Your task to perform on an android device: Clear the cart on ebay.com. Search for "razer blade" on ebay.com, select the first entry, and add it to the cart. Image 0: 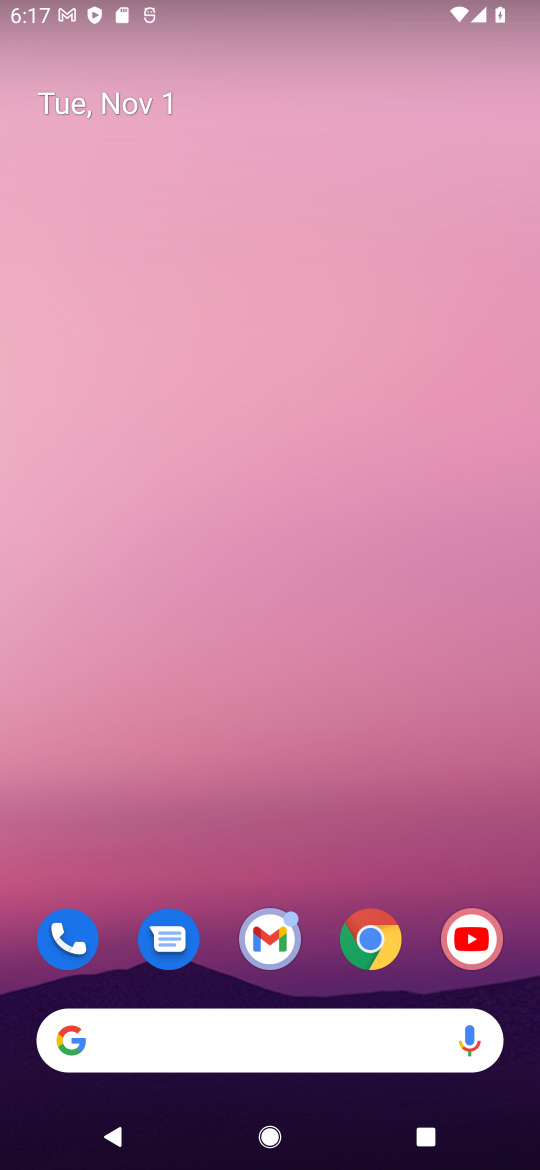
Step 0: drag from (267, 964) to (177, 178)
Your task to perform on an android device: Clear the cart on ebay.com. Search for "razer blade" on ebay.com, select the first entry, and add it to the cart. Image 1: 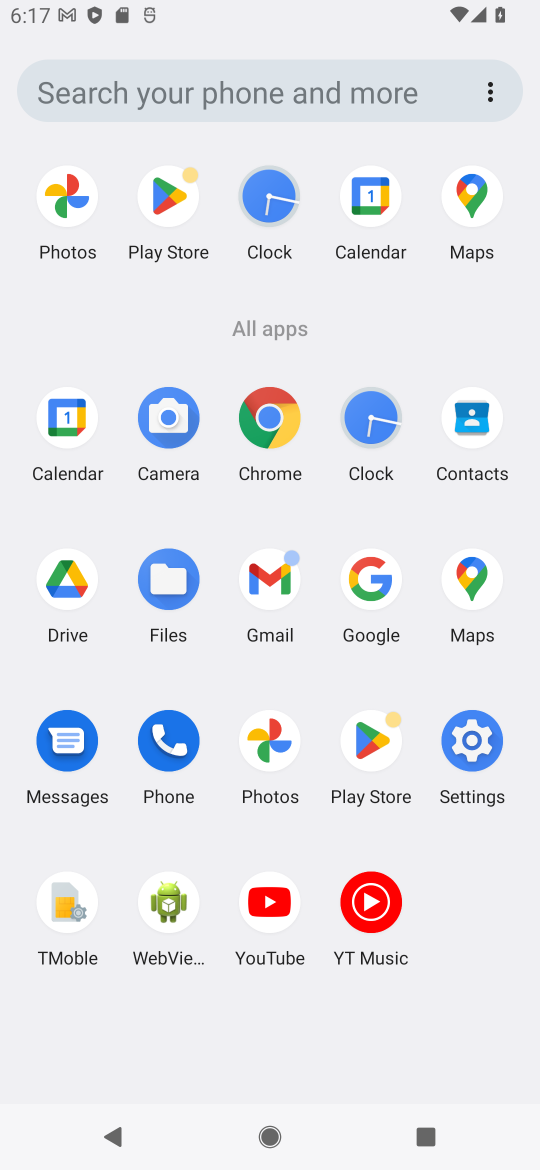
Step 1: click (284, 419)
Your task to perform on an android device: Clear the cart on ebay.com. Search for "razer blade" on ebay.com, select the first entry, and add it to the cart. Image 2: 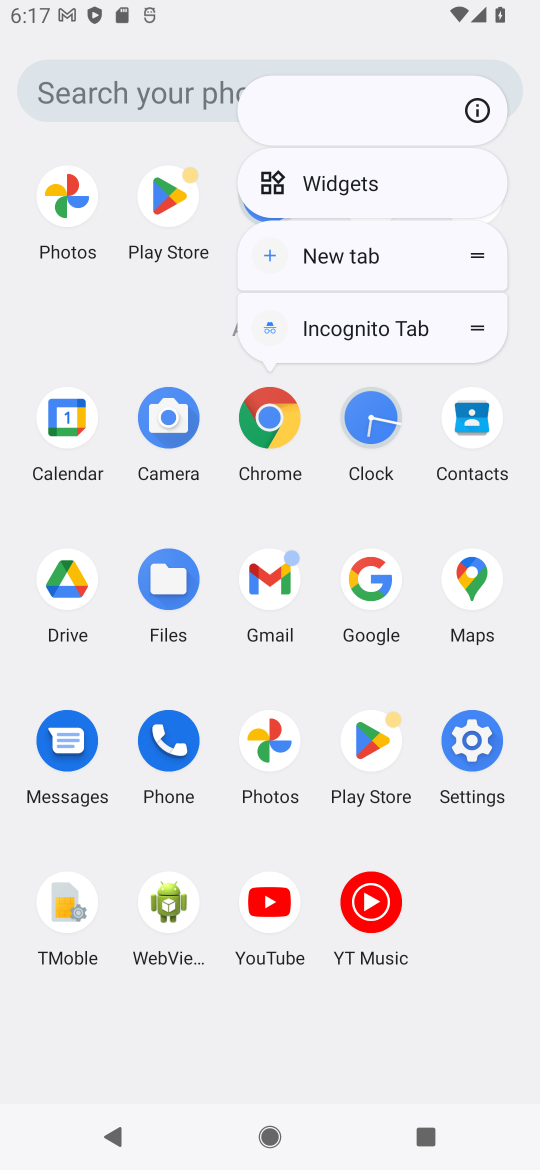
Step 2: click (284, 417)
Your task to perform on an android device: Clear the cart on ebay.com. Search for "razer blade" on ebay.com, select the first entry, and add it to the cart. Image 3: 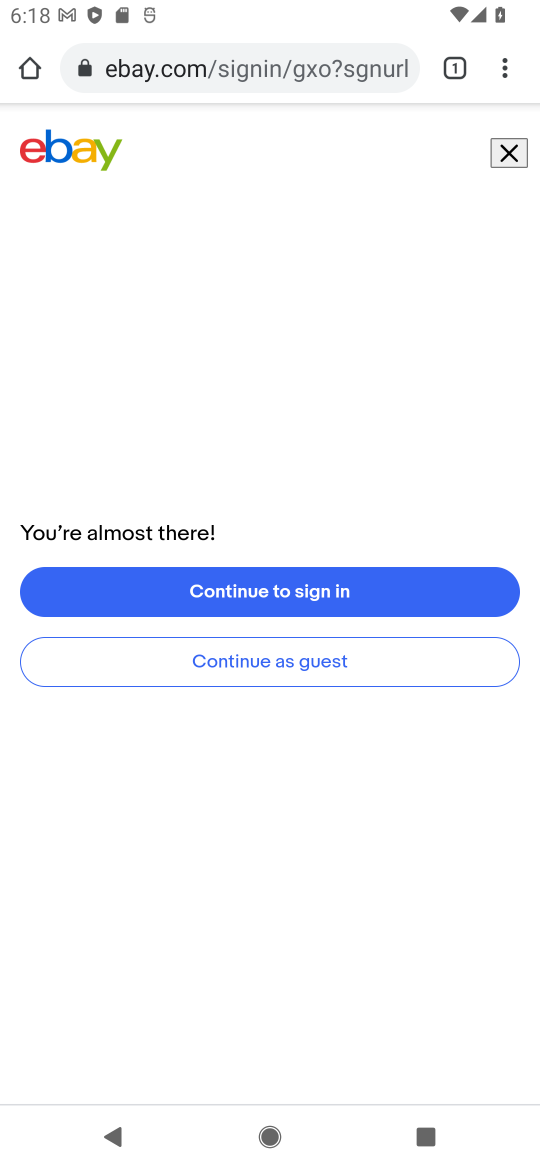
Step 3: click (298, 66)
Your task to perform on an android device: Clear the cart on ebay.com. Search for "razer blade" on ebay.com, select the first entry, and add it to the cart. Image 4: 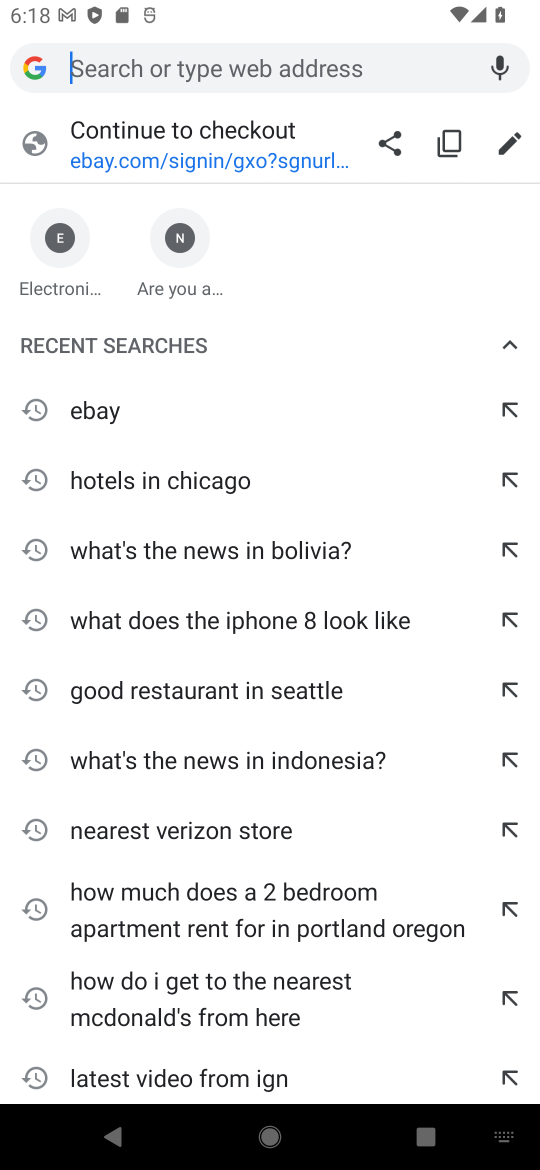
Step 4: click (53, 394)
Your task to perform on an android device: Clear the cart on ebay.com. Search for "razer blade" on ebay.com, select the first entry, and add it to the cart. Image 5: 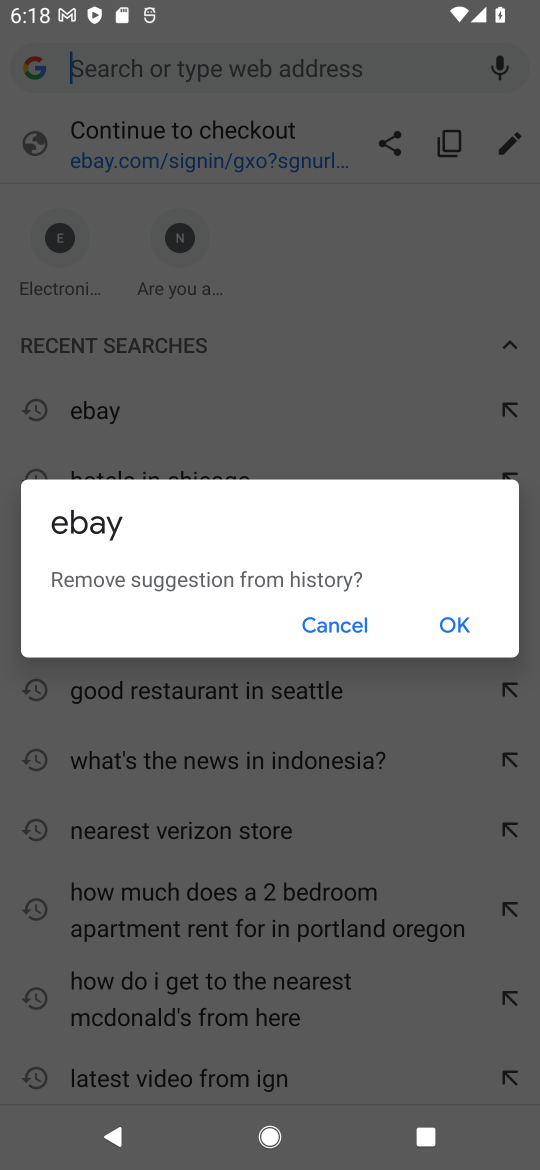
Step 5: click (351, 644)
Your task to perform on an android device: Clear the cart on ebay.com. Search for "razer blade" on ebay.com, select the first entry, and add it to the cart. Image 6: 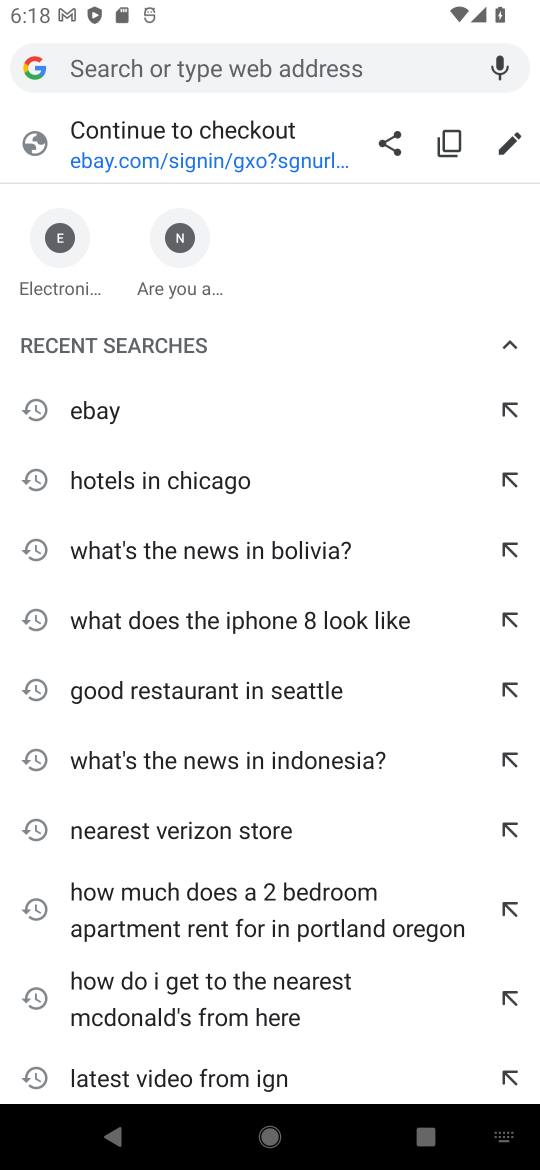
Step 6: type "ebay.com."
Your task to perform on an android device: Clear the cart on ebay.com. Search for "razer blade" on ebay.com, select the first entry, and add it to the cart. Image 7: 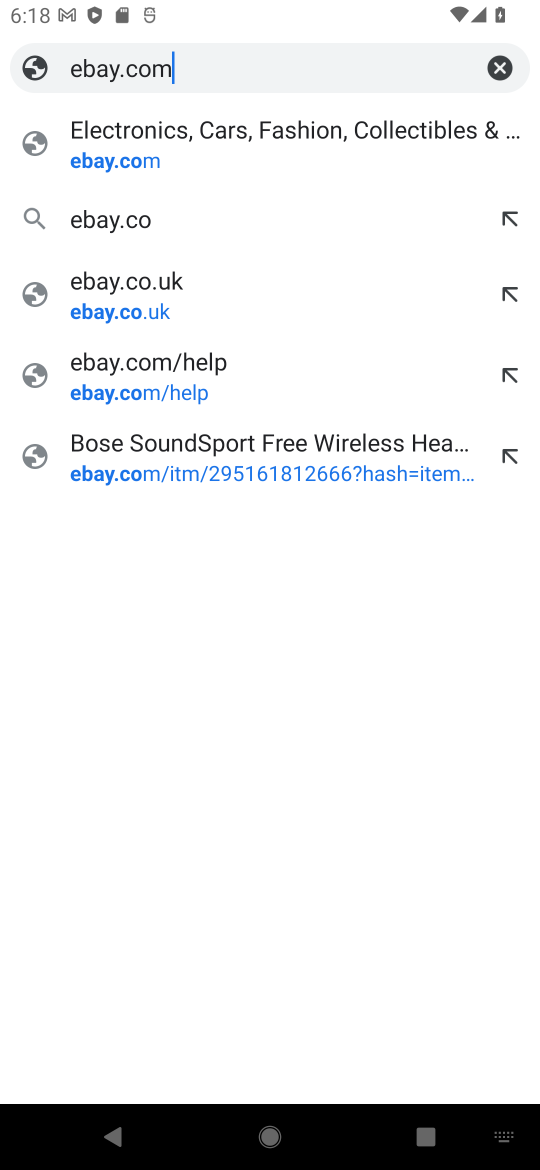
Step 7: press enter
Your task to perform on an android device: Clear the cart on ebay.com. Search for "razer blade" on ebay.com, select the first entry, and add it to the cart. Image 8: 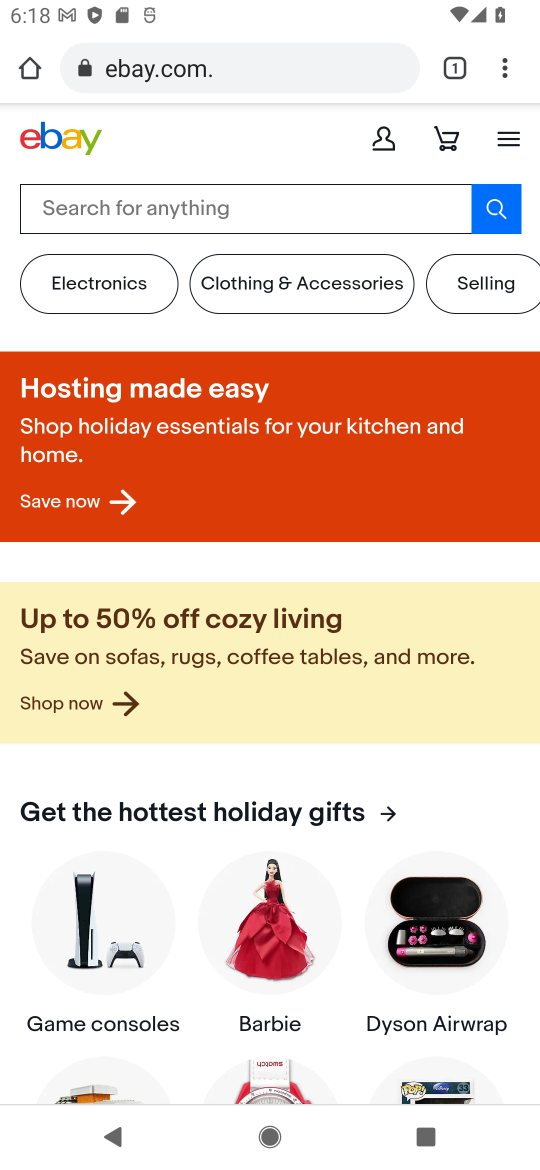
Step 8: drag from (423, 797) to (512, 324)
Your task to perform on an android device: Clear the cart on ebay.com. Search for "razer blade" on ebay.com, select the first entry, and add it to the cart. Image 9: 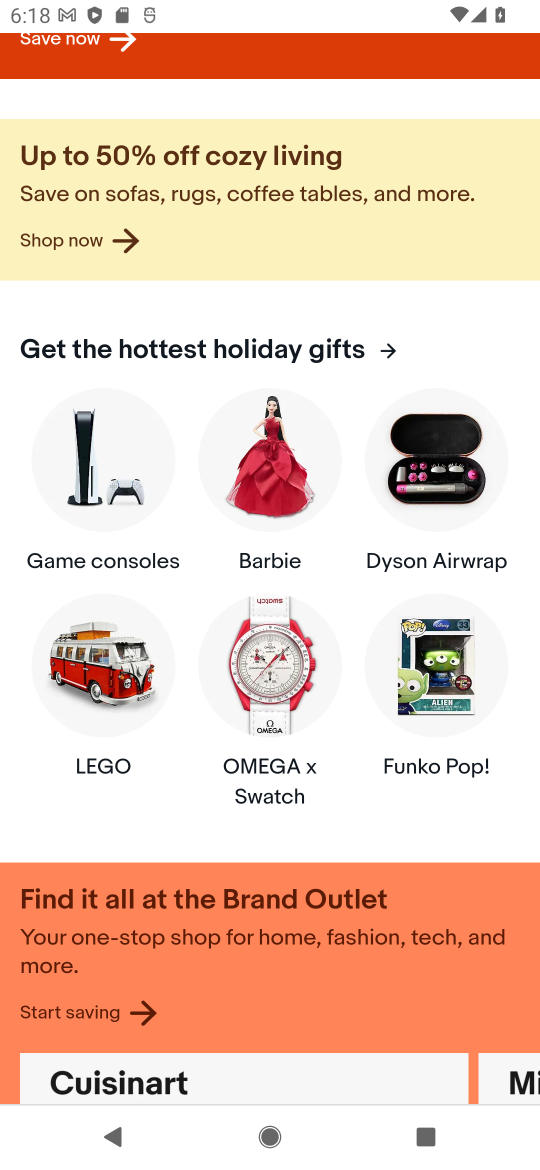
Step 9: drag from (335, 868) to (346, 298)
Your task to perform on an android device: Clear the cart on ebay.com. Search for "razer blade" on ebay.com, select the first entry, and add it to the cart. Image 10: 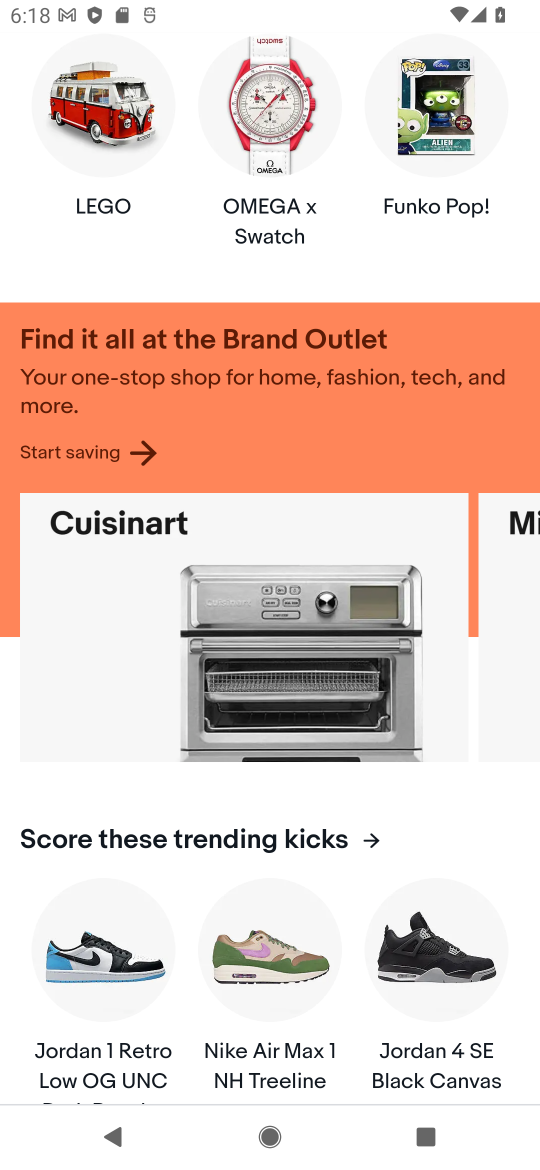
Step 10: drag from (324, 607) to (403, 955)
Your task to perform on an android device: Clear the cart on ebay.com. Search for "razer blade" on ebay.com, select the first entry, and add it to the cart. Image 11: 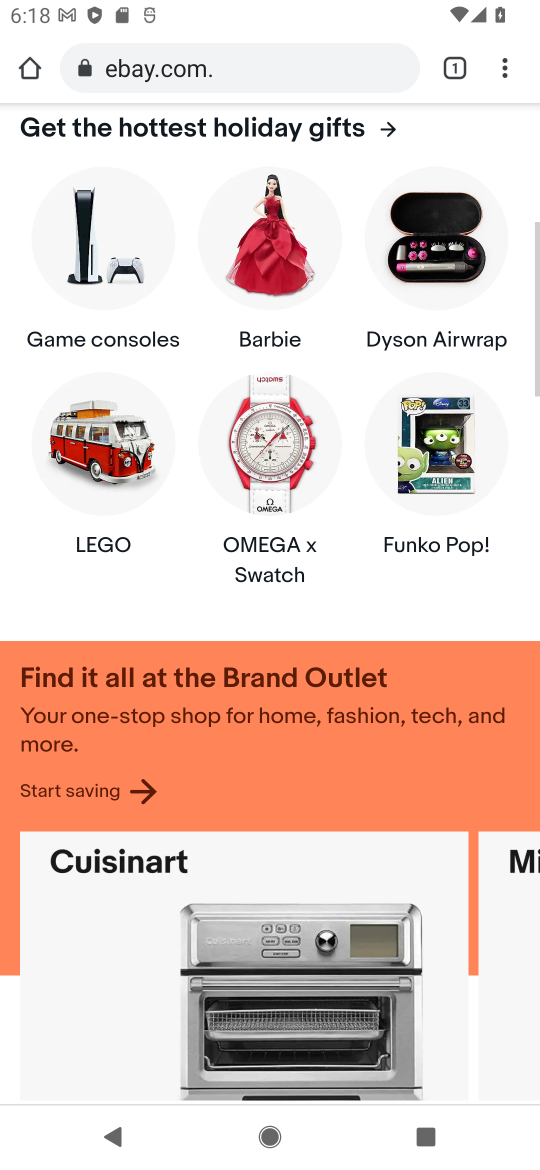
Step 11: drag from (409, 241) to (514, 926)
Your task to perform on an android device: Clear the cart on ebay.com. Search for "razer blade" on ebay.com, select the first entry, and add it to the cart. Image 12: 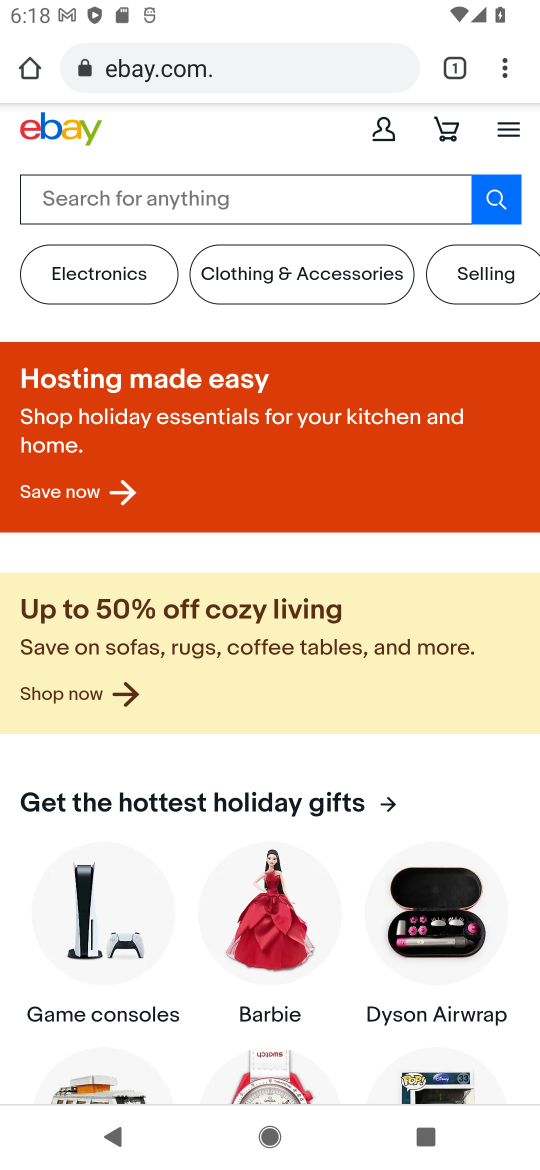
Step 12: drag from (450, 564) to (485, 788)
Your task to perform on an android device: Clear the cart on ebay.com. Search for "razer blade" on ebay.com, select the first entry, and add it to the cart. Image 13: 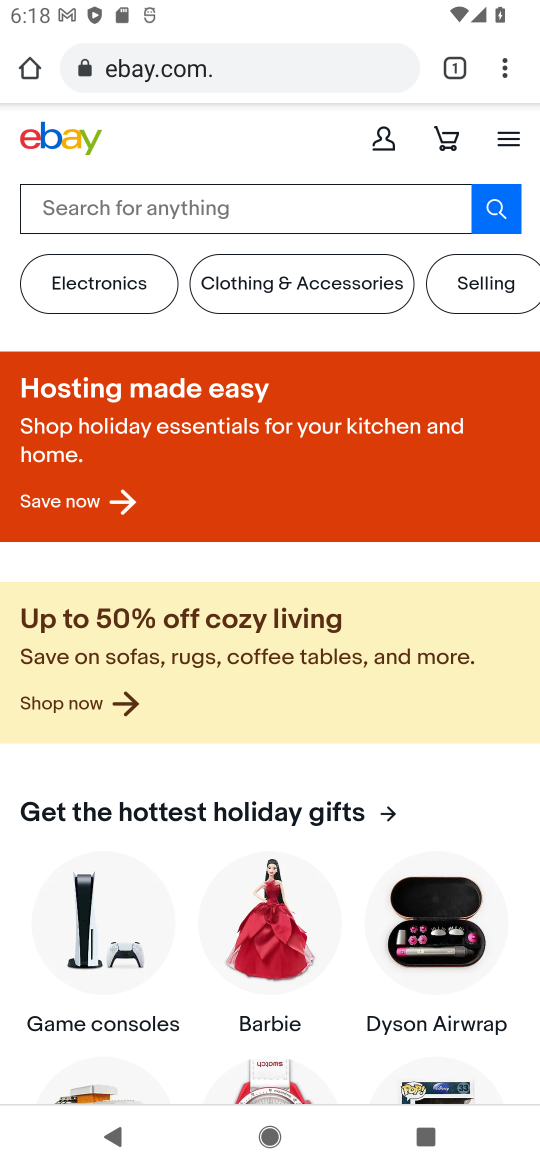
Step 13: click (293, 200)
Your task to perform on an android device: Clear the cart on ebay.com. Search for "razer blade" on ebay.com, select the first entry, and add it to the cart. Image 14: 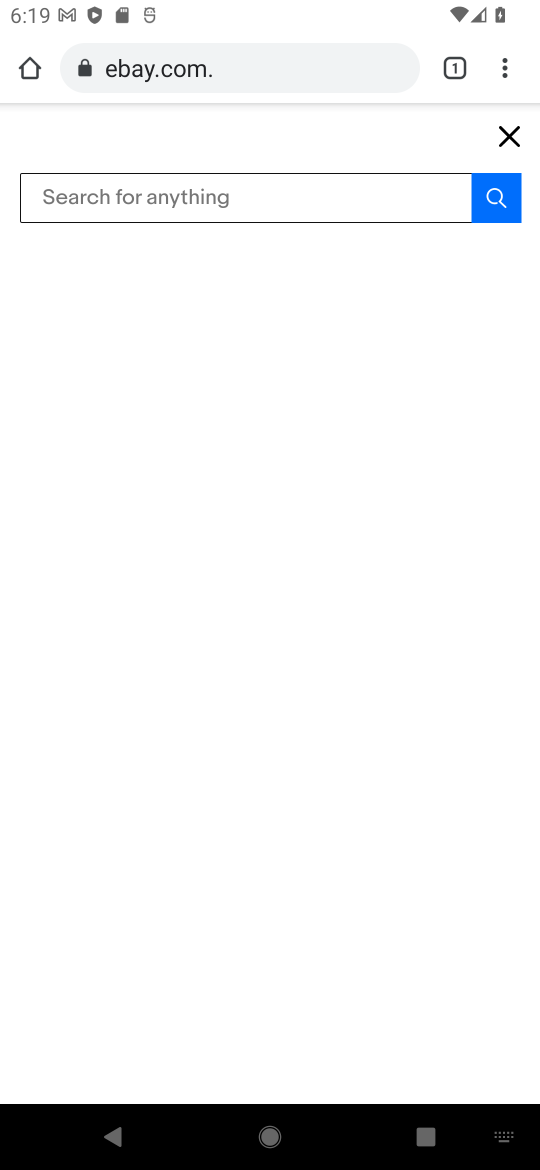
Step 14: type "razer blade"
Your task to perform on an android device: Clear the cart on ebay.com. Search for "razer blade" on ebay.com, select the first entry, and add it to the cart. Image 15: 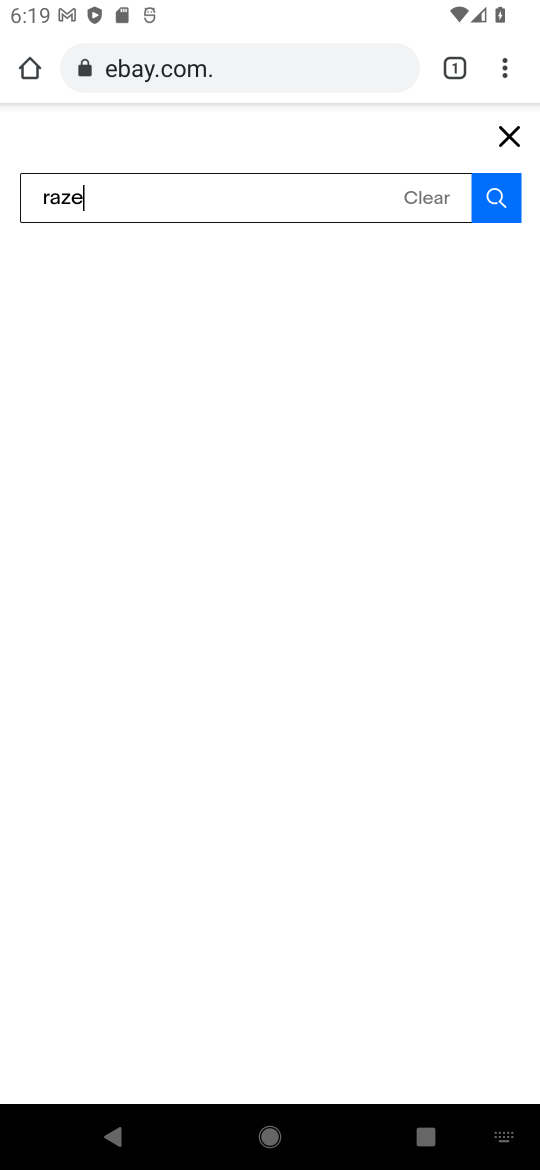
Step 15: press enter
Your task to perform on an android device: Clear the cart on ebay.com. Search for "razer blade" on ebay.com, select the first entry, and add it to the cart. Image 16: 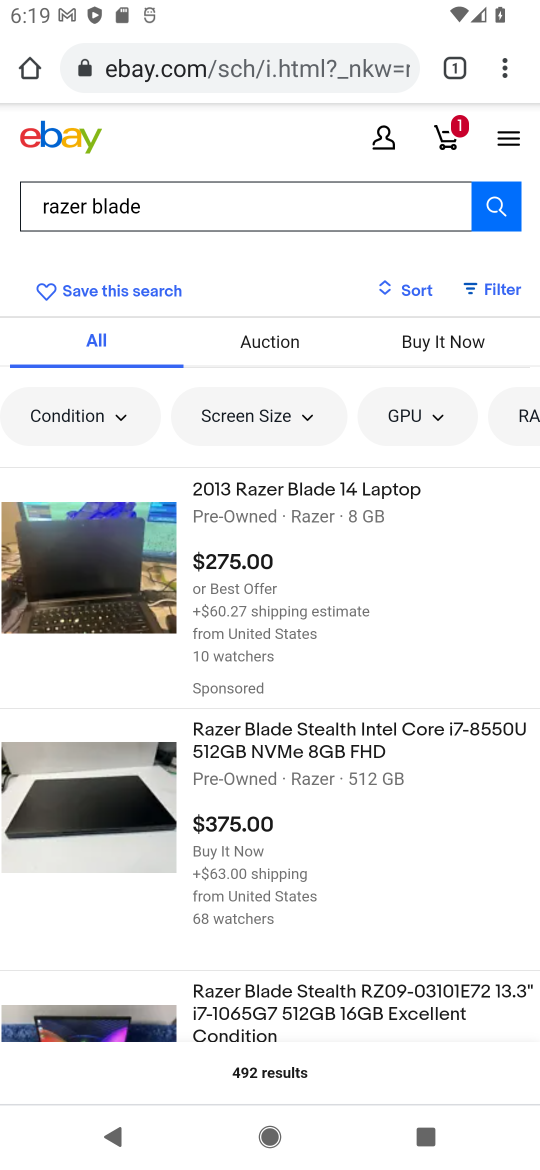
Step 16: click (35, 551)
Your task to perform on an android device: Clear the cart on ebay.com. Search for "razer blade" on ebay.com, select the first entry, and add it to the cart. Image 17: 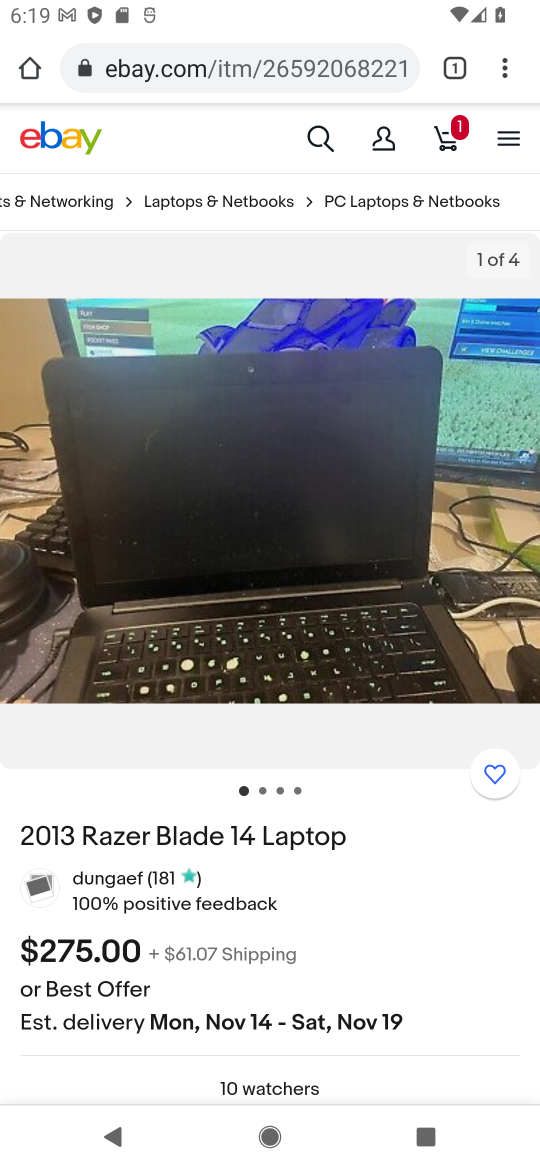
Step 17: drag from (272, 962) to (425, 484)
Your task to perform on an android device: Clear the cart on ebay.com. Search for "razer blade" on ebay.com, select the first entry, and add it to the cart. Image 18: 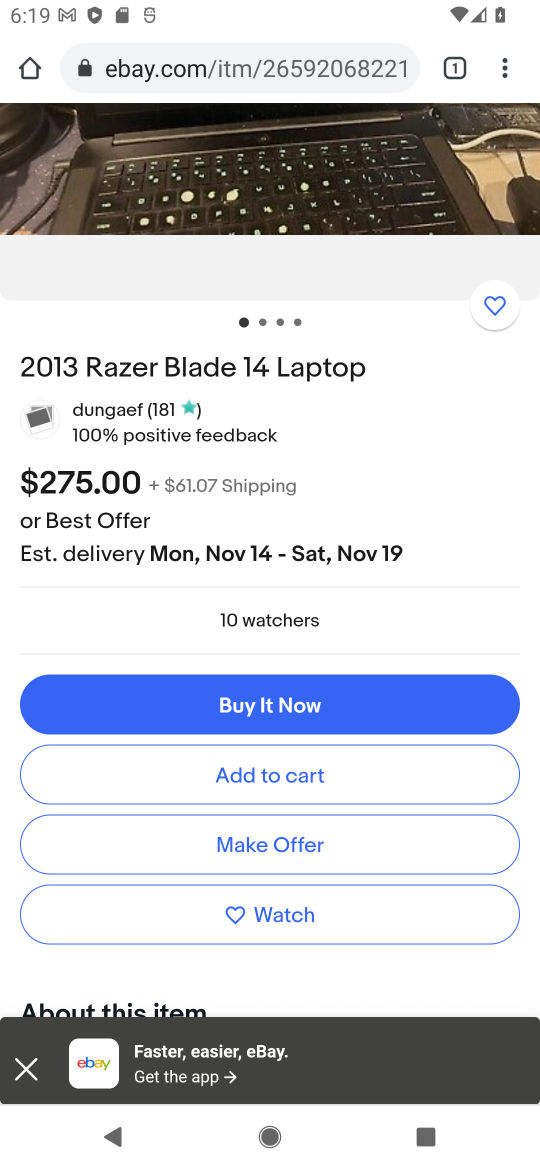
Step 18: click (310, 783)
Your task to perform on an android device: Clear the cart on ebay.com. Search for "razer blade" on ebay.com, select the first entry, and add it to the cart. Image 19: 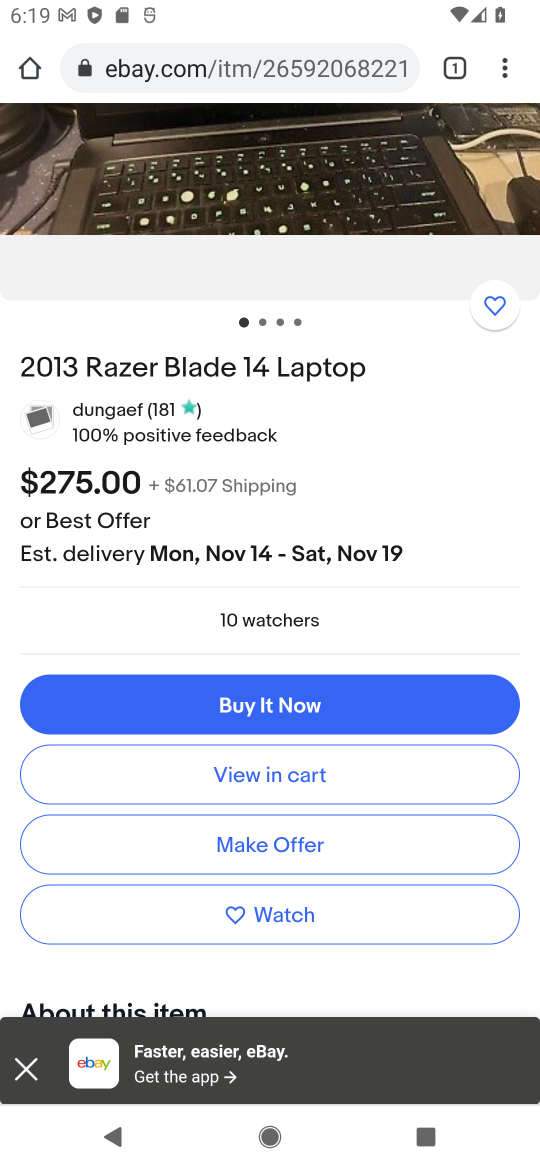
Step 19: click (310, 783)
Your task to perform on an android device: Clear the cart on ebay.com. Search for "razer blade" on ebay.com, select the first entry, and add it to the cart. Image 20: 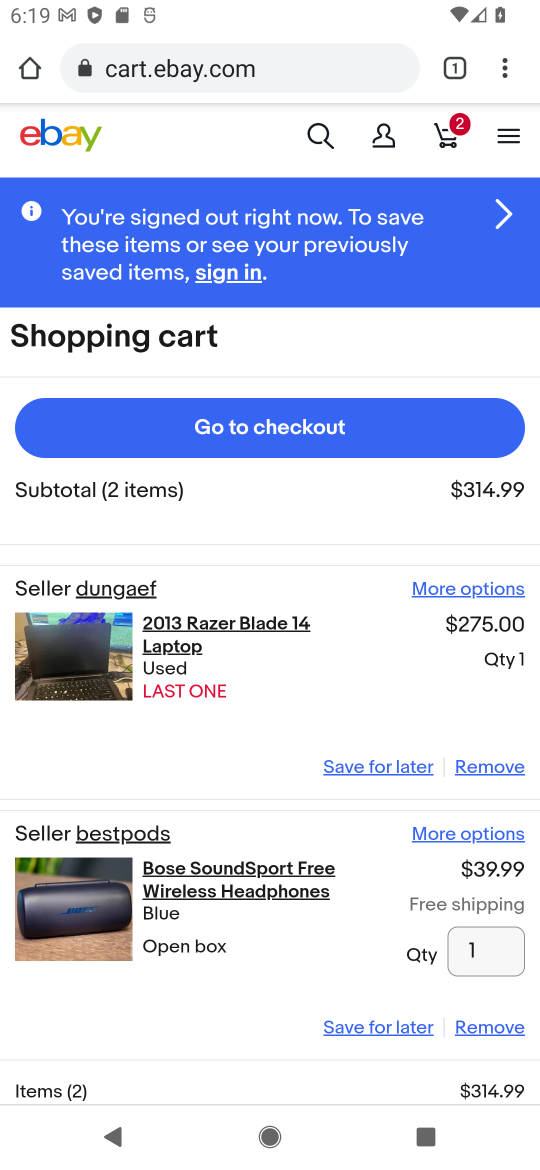
Step 20: task complete